Your task to perform on an android device: Find coffee shops on Maps Image 0: 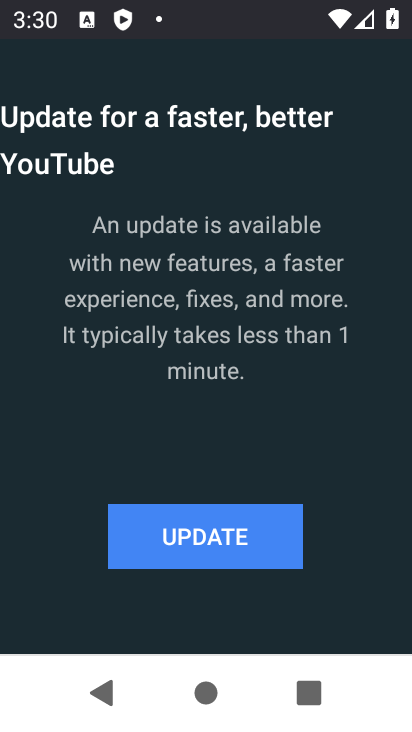
Step 0: press home button
Your task to perform on an android device: Find coffee shops on Maps Image 1: 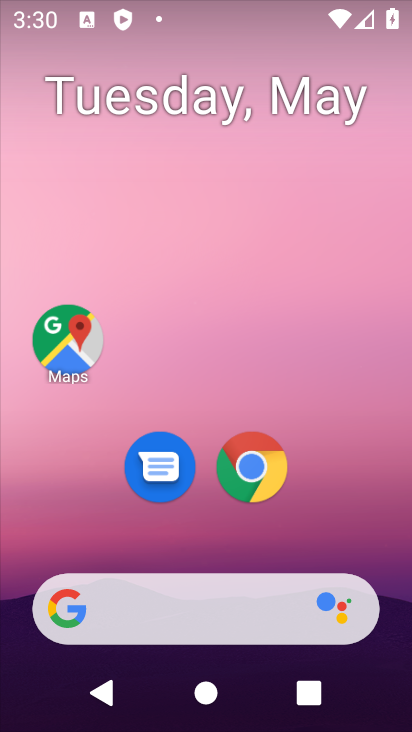
Step 1: click (84, 373)
Your task to perform on an android device: Find coffee shops on Maps Image 2: 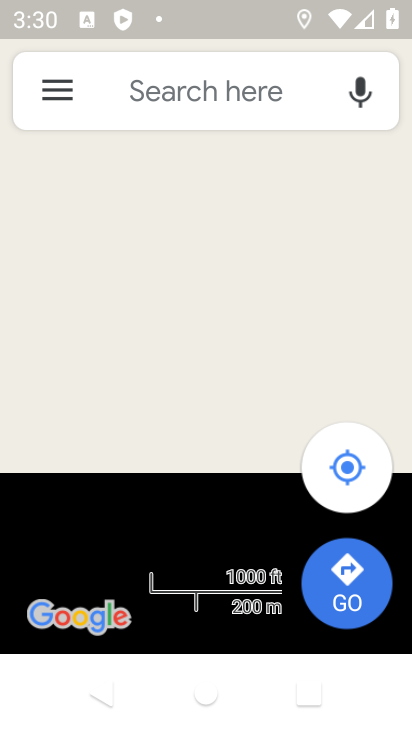
Step 2: click (179, 73)
Your task to perform on an android device: Find coffee shops on Maps Image 3: 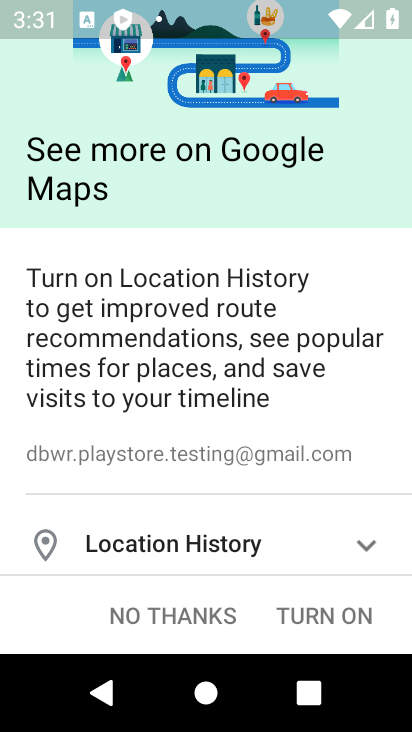
Step 3: type "coffee"
Your task to perform on an android device: Find coffee shops on Maps Image 4: 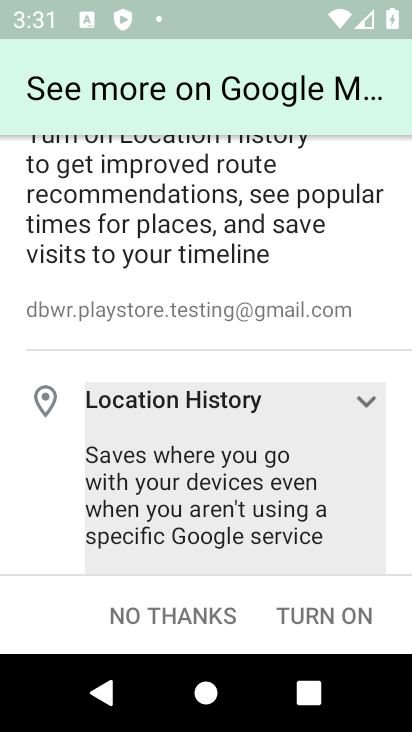
Step 4: task complete